Your task to perform on an android device: Go to location settings Image 0: 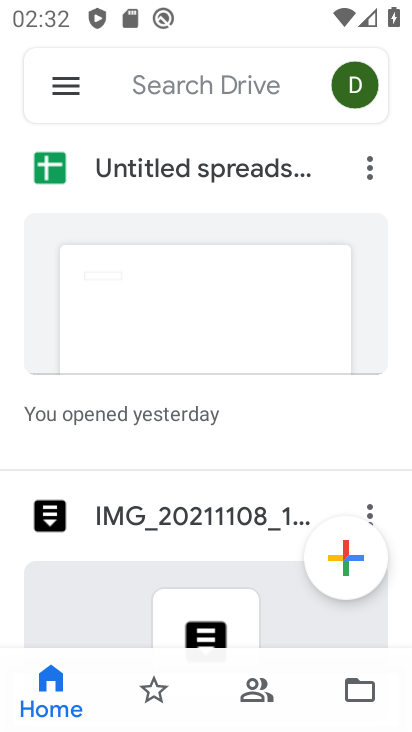
Step 0: press back button
Your task to perform on an android device: Go to location settings Image 1: 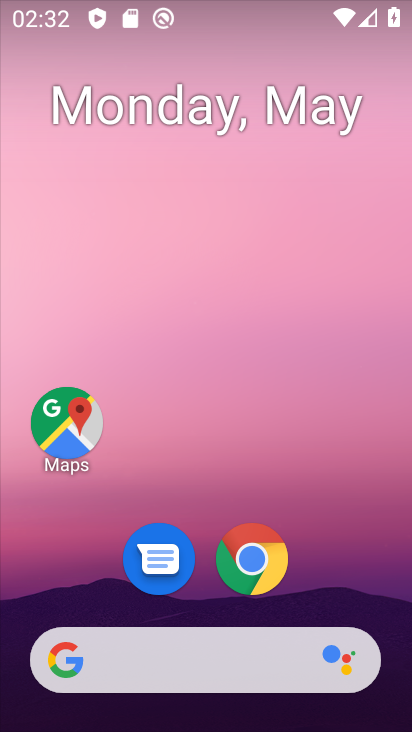
Step 1: drag from (325, 548) to (313, 1)
Your task to perform on an android device: Go to location settings Image 2: 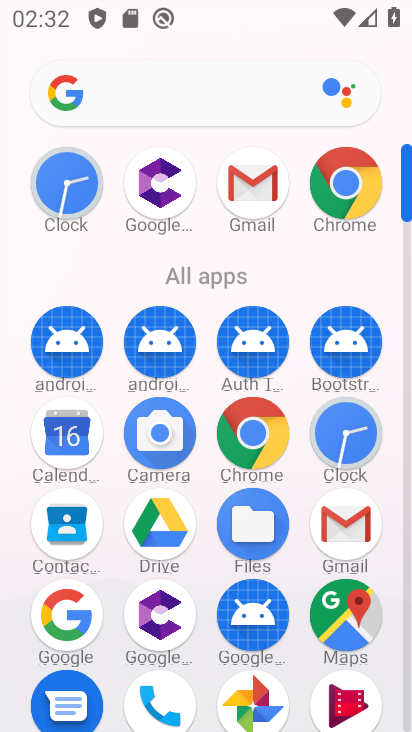
Step 2: drag from (1, 556) to (13, 205)
Your task to perform on an android device: Go to location settings Image 3: 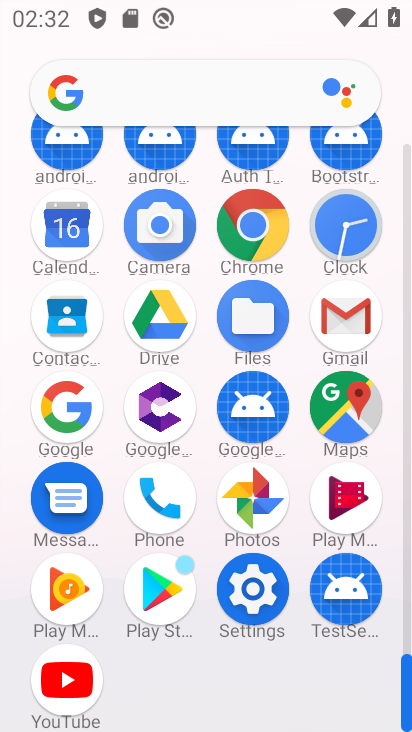
Step 3: click (254, 587)
Your task to perform on an android device: Go to location settings Image 4: 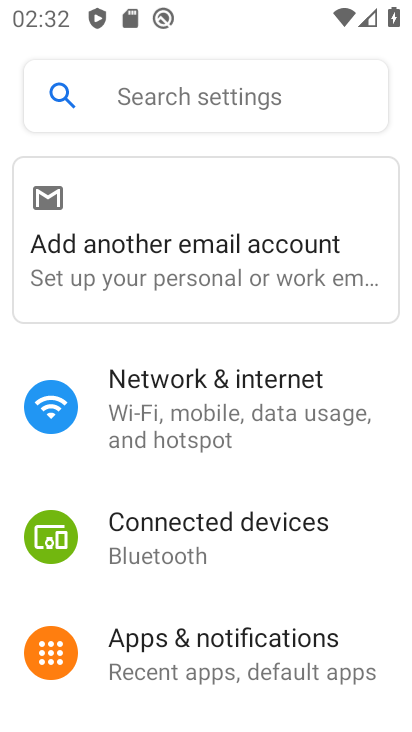
Step 4: drag from (346, 667) to (315, 208)
Your task to perform on an android device: Go to location settings Image 5: 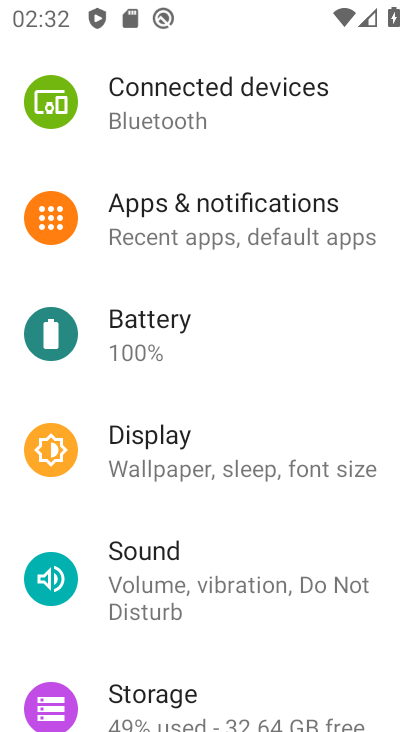
Step 5: drag from (265, 617) to (257, 184)
Your task to perform on an android device: Go to location settings Image 6: 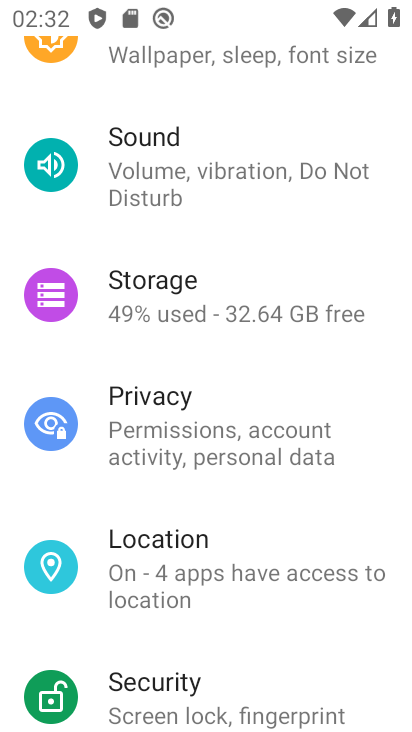
Step 6: click (228, 572)
Your task to perform on an android device: Go to location settings Image 7: 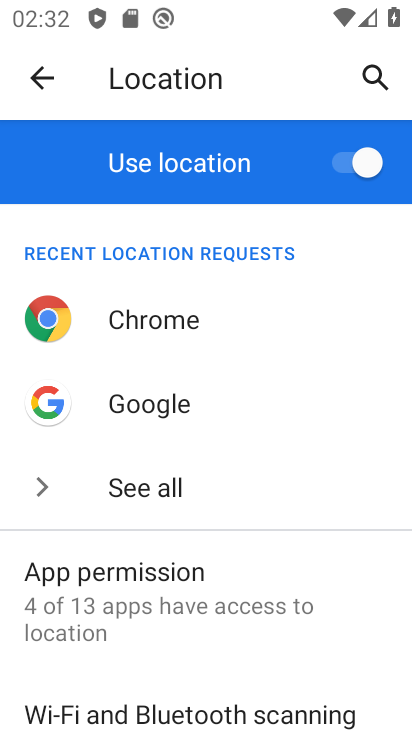
Step 7: drag from (283, 623) to (307, 149)
Your task to perform on an android device: Go to location settings Image 8: 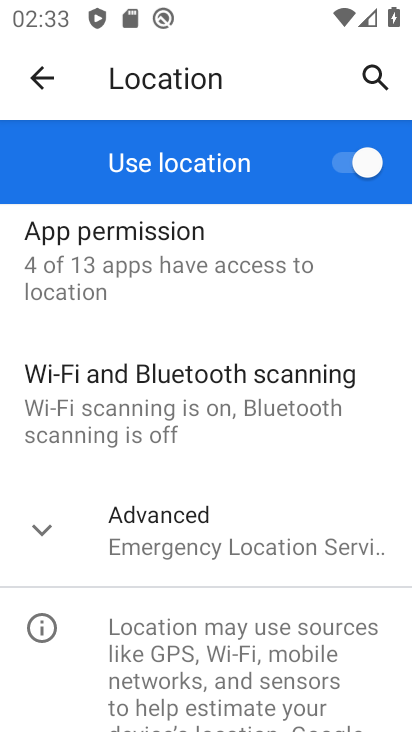
Step 8: click (52, 539)
Your task to perform on an android device: Go to location settings Image 9: 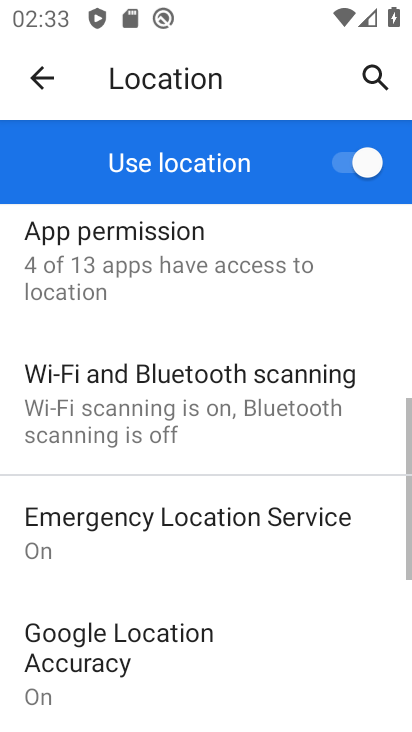
Step 9: task complete